Your task to perform on an android device: open a bookmark in the chrome app Image 0: 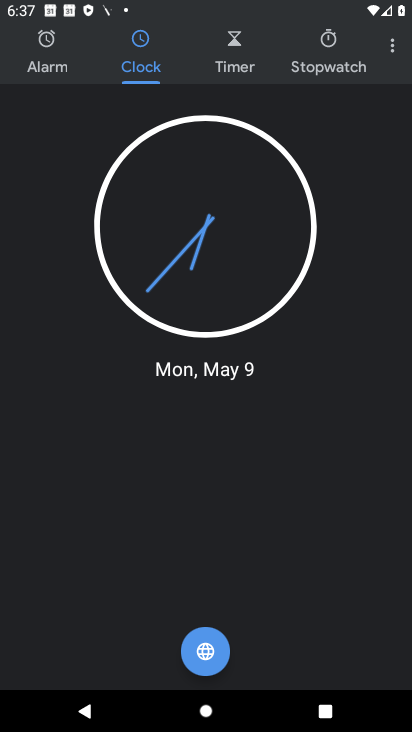
Step 0: press home button
Your task to perform on an android device: open a bookmark in the chrome app Image 1: 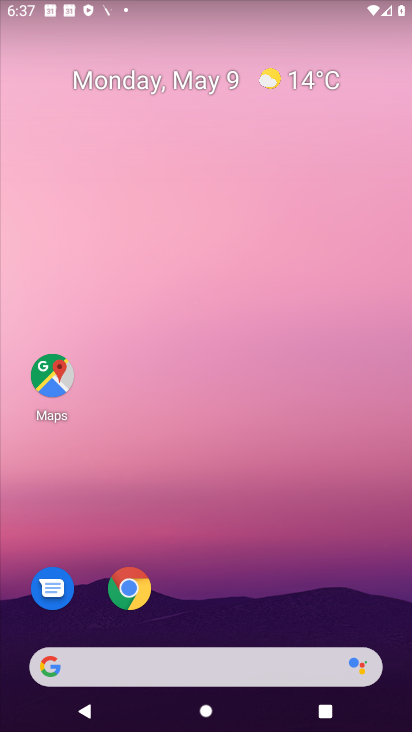
Step 1: drag from (329, 595) to (333, 108)
Your task to perform on an android device: open a bookmark in the chrome app Image 2: 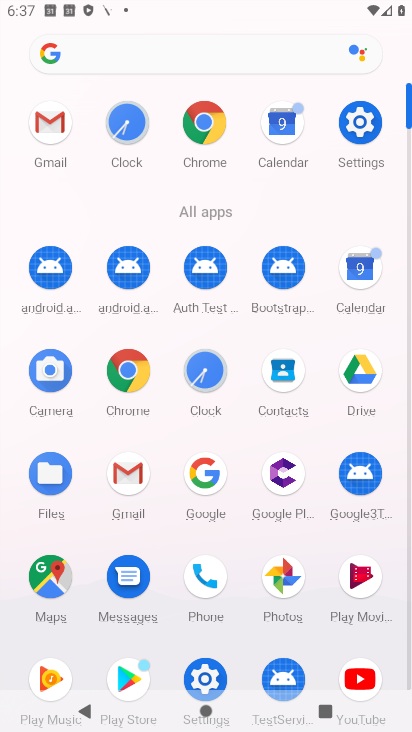
Step 2: click (125, 363)
Your task to perform on an android device: open a bookmark in the chrome app Image 3: 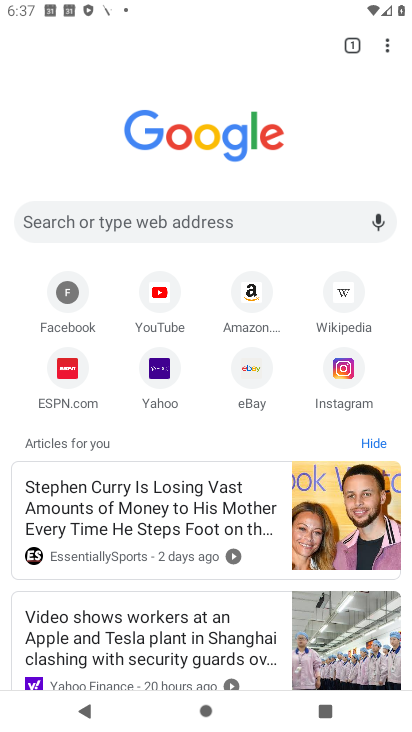
Step 3: click (386, 39)
Your task to perform on an android device: open a bookmark in the chrome app Image 4: 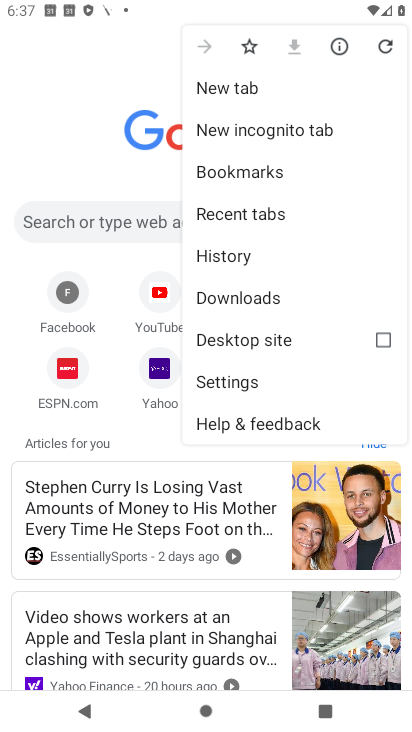
Step 4: click (258, 177)
Your task to perform on an android device: open a bookmark in the chrome app Image 5: 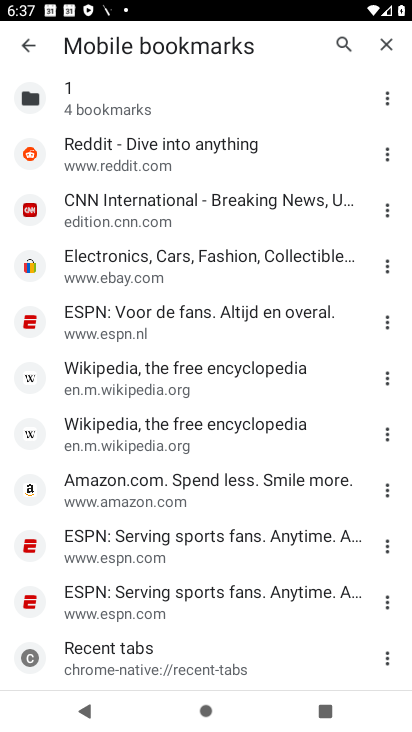
Step 5: task complete